Your task to perform on an android device: Open ESPN.com Image 0: 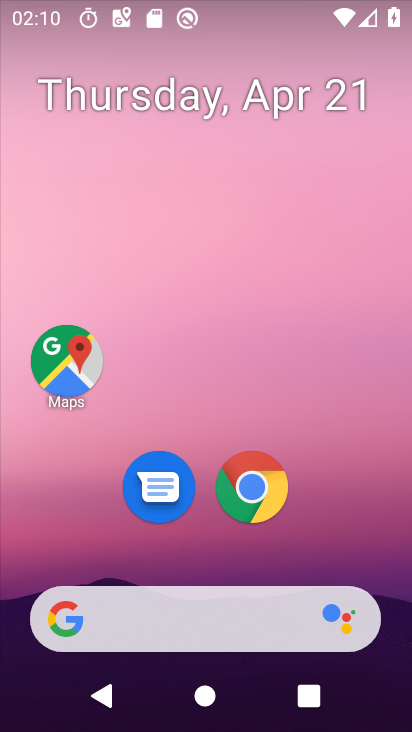
Step 0: drag from (243, 590) to (304, 196)
Your task to perform on an android device: Open ESPN.com Image 1: 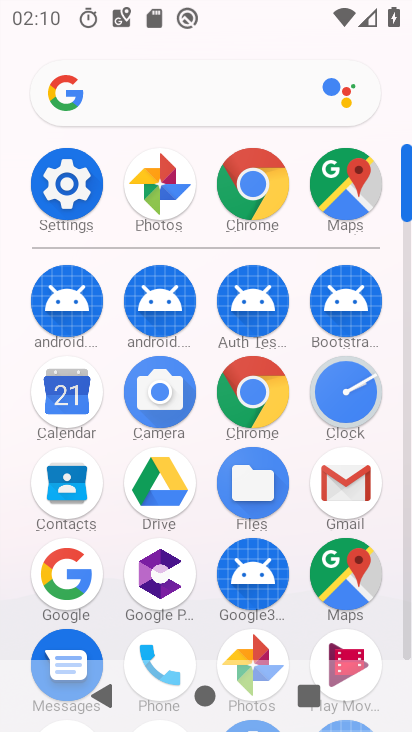
Step 1: click (260, 386)
Your task to perform on an android device: Open ESPN.com Image 2: 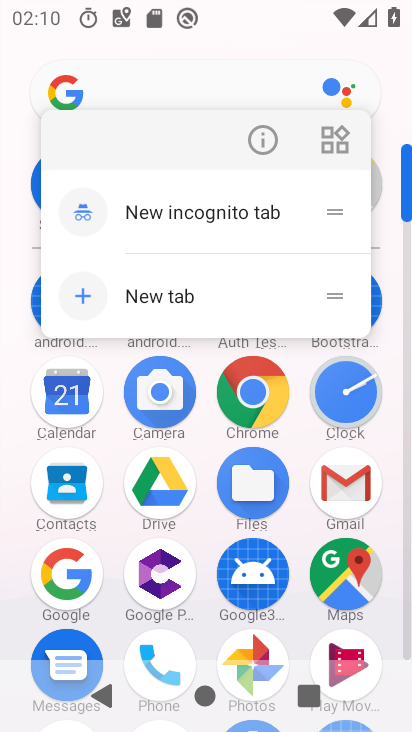
Step 2: click (252, 138)
Your task to perform on an android device: Open ESPN.com Image 3: 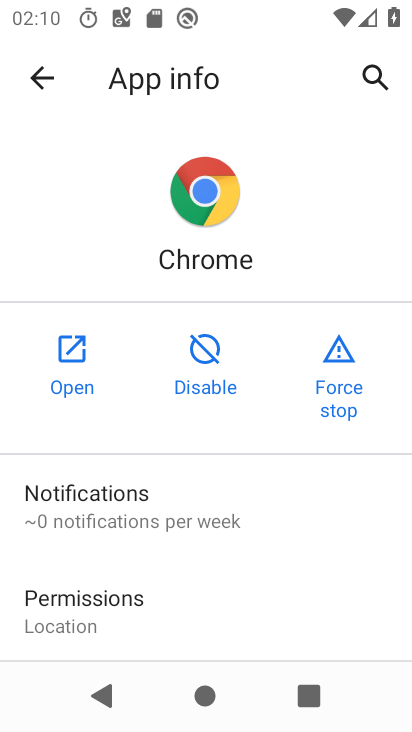
Step 3: drag from (170, 543) to (178, 216)
Your task to perform on an android device: Open ESPN.com Image 4: 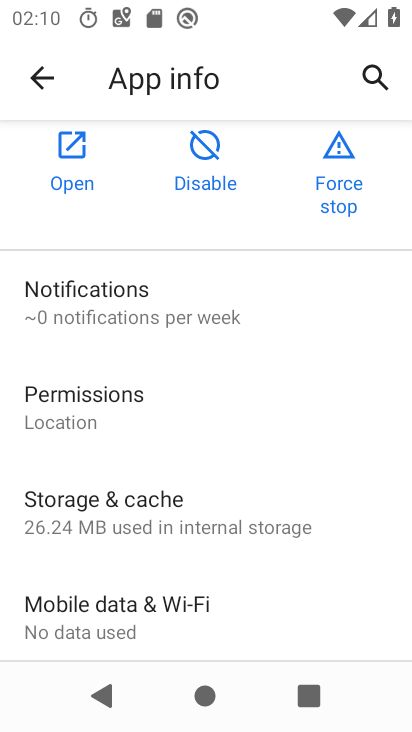
Step 4: click (68, 188)
Your task to perform on an android device: Open ESPN.com Image 5: 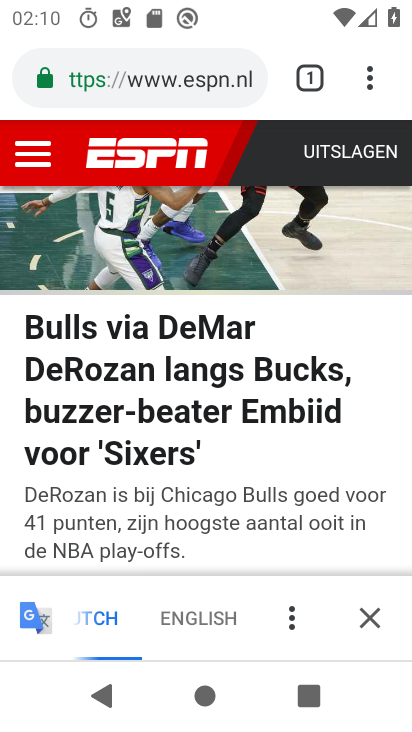
Step 5: drag from (151, 564) to (406, 414)
Your task to perform on an android device: Open ESPN.com Image 6: 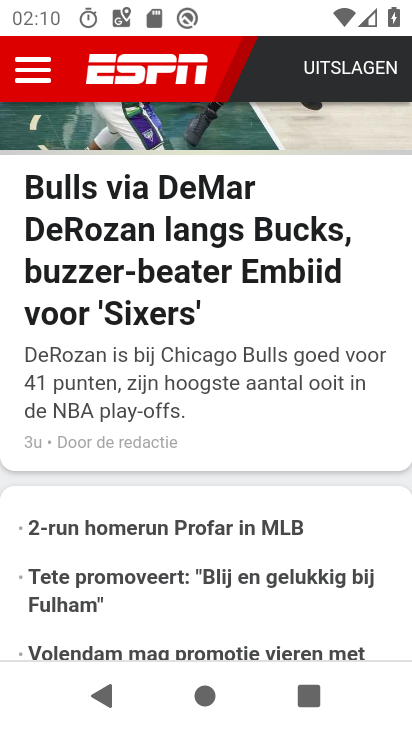
Step 6: drag from (247, 445) to (269, 264)
Your task to perform on an android device: Open ESPN.com Image 7: 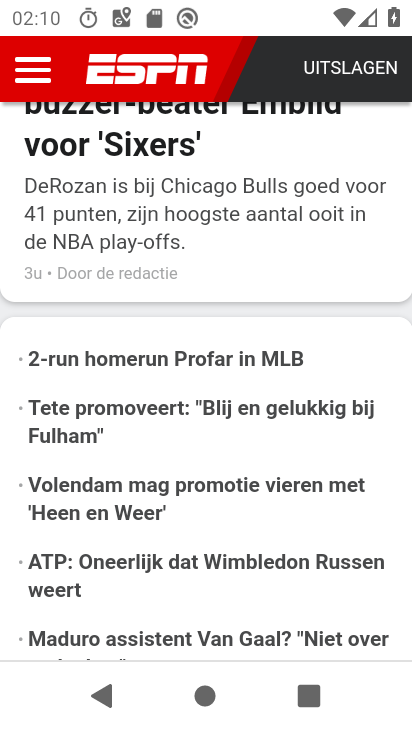
Step 7: click (249, 325)
Your task to perform on an android device: Open ESPN.com Image 8: 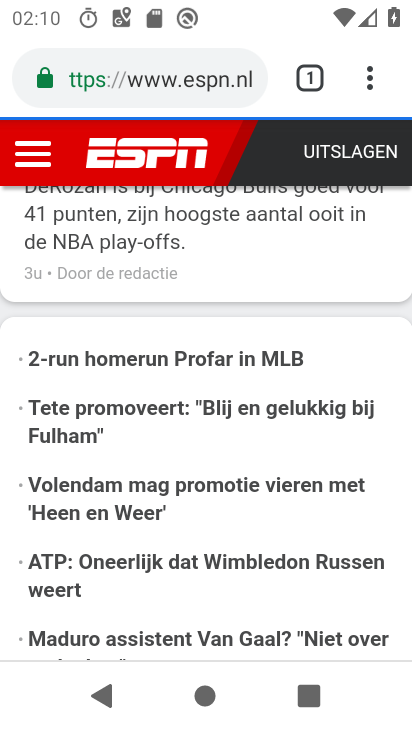
Step 8: task complete